Your task to perform on an android device: Play the last video I watched on Youtube Image 0: 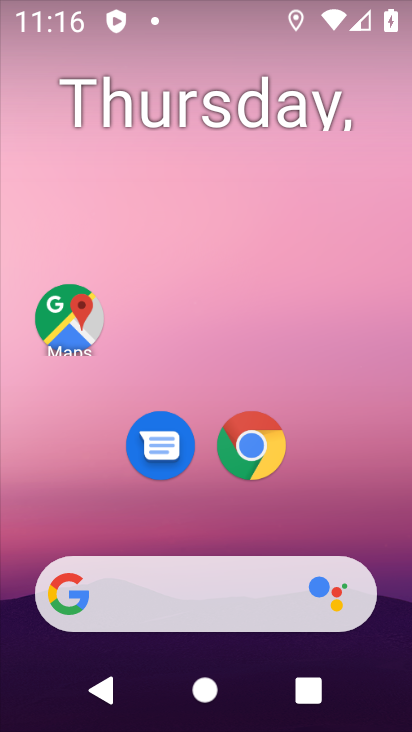
Step 0: drag from (387, 590) to (289, 67)
Your task to perform on an android device: Play the last video I watched on Youtube Image 1: 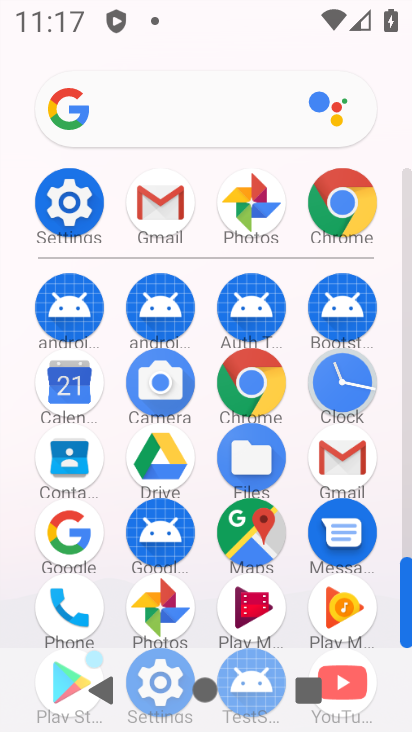
Step 1: drag from (288, 601) to (277, 183)
Your task to perform on an android device: Play the last video I watched on Youtube Image 2: 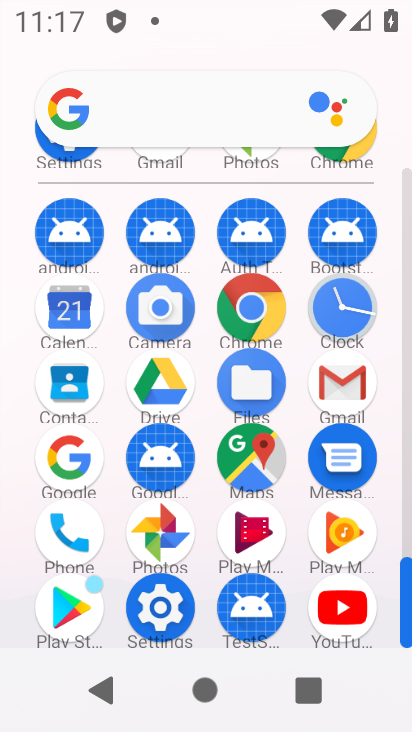
Step 2: click (340, 591)
Your task to perform on an android device: Play the last video I watched on Youtube Image 3: 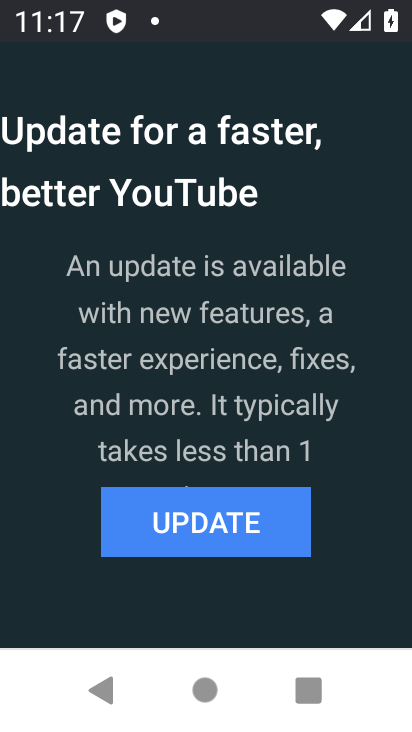
Step 3: click (243, 513)
Your task to perform on an android device: Play the last video I watched on Youtube Image 4: 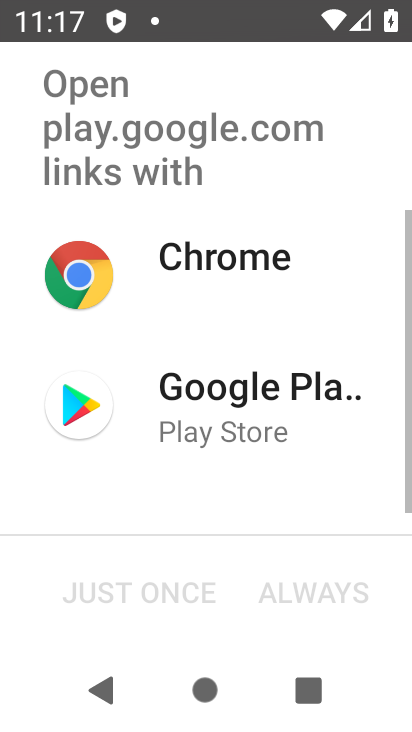
Step 4: click (232, 402)
Your task to perform on an android device: Play the last video I watched on Youtube Image 5: 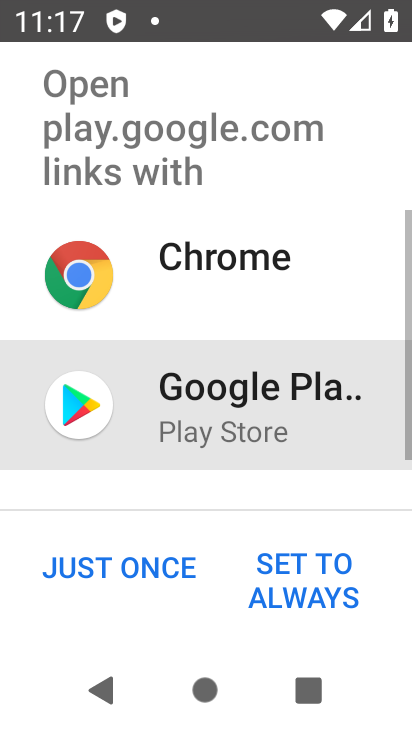
Step 5: click (148, 599)
Your task to perform on an android device: Play the last video I watched on Youtube Image 6: 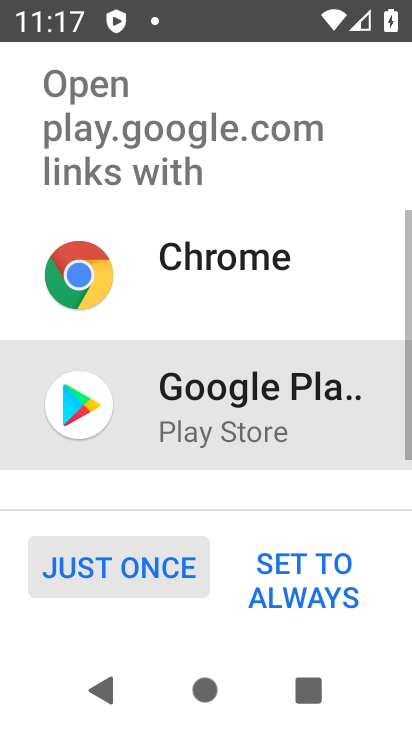
Step 6: click (148, 567)
Your task to perform on an android device: Play the last video I watched on Youtube Image 7: 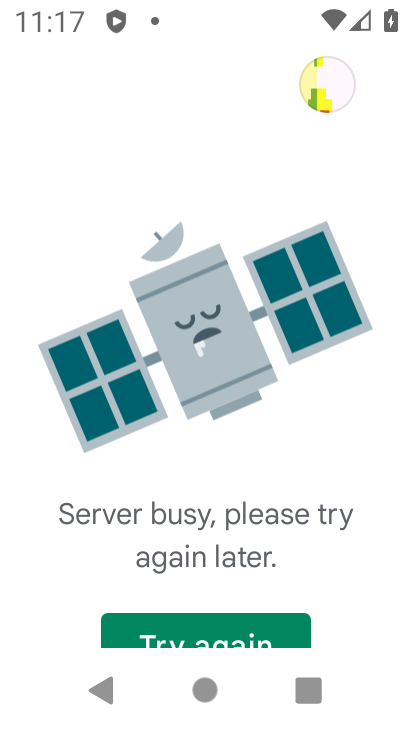
Step 7: task complete